Your task to perform on an android device: Open maps Image 0: 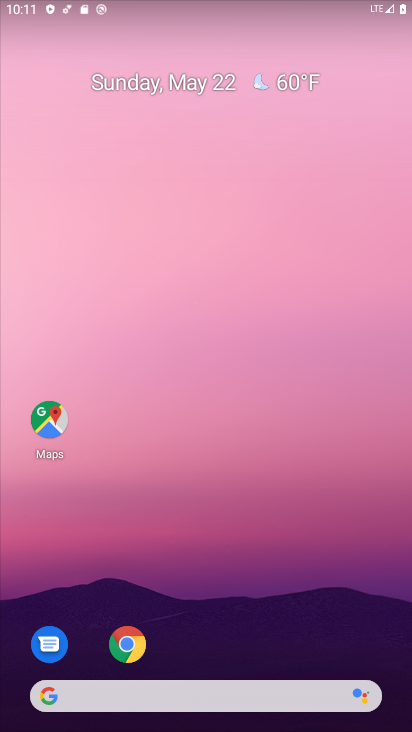
Step 0: click (44, 416)
Your task to perform on an android device: Open maps Image 1: 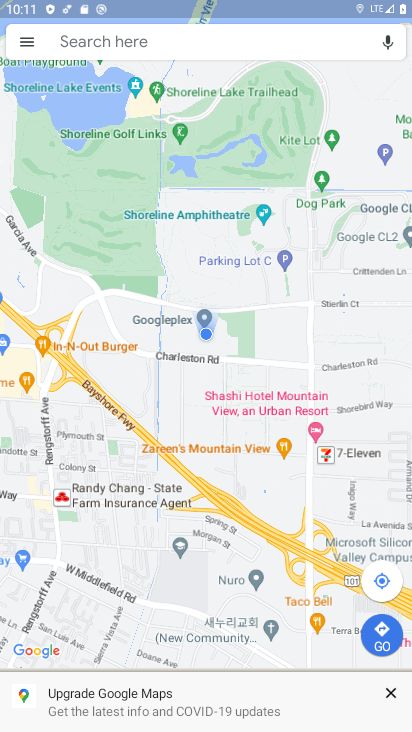
Step 1: click (31, 30)
Your task to perform on an android device: Open maps Image 2: 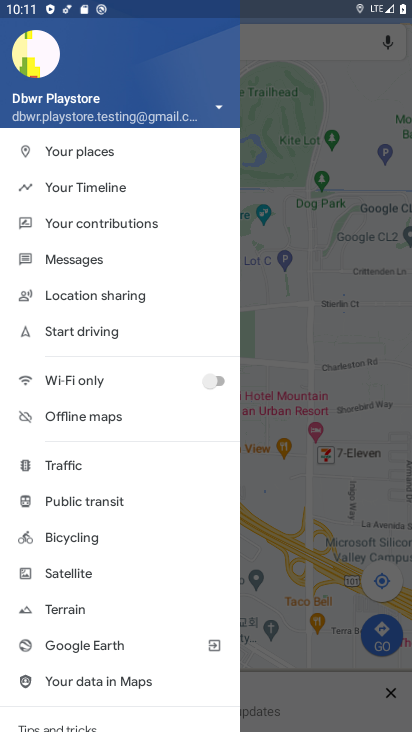
Step 2: click (351, 279)
Your task to perform on an android device: Open maps Image 3: 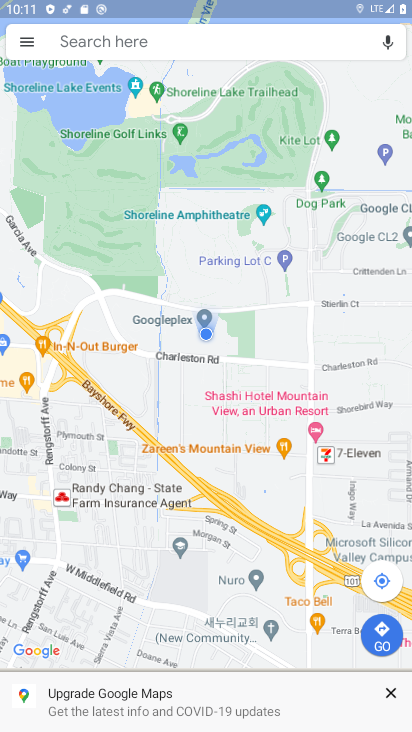
Step 3: task complete